Your task to perform on an android device: change timer sound Image 0: 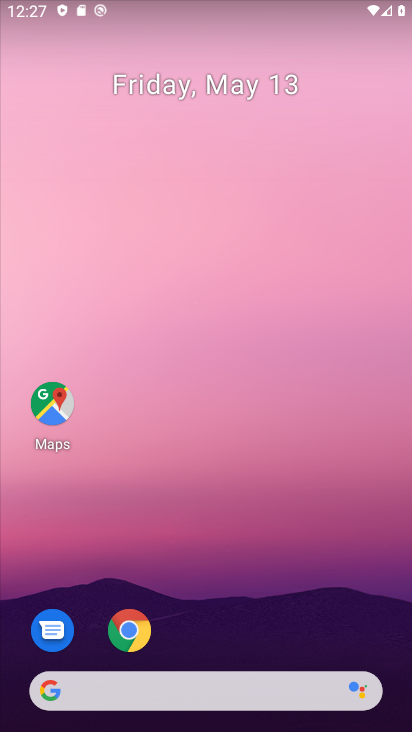
Step 0: drag from (263, 708) to (273, 283)
Your task to perform on an android device: change timer sound Image 1: 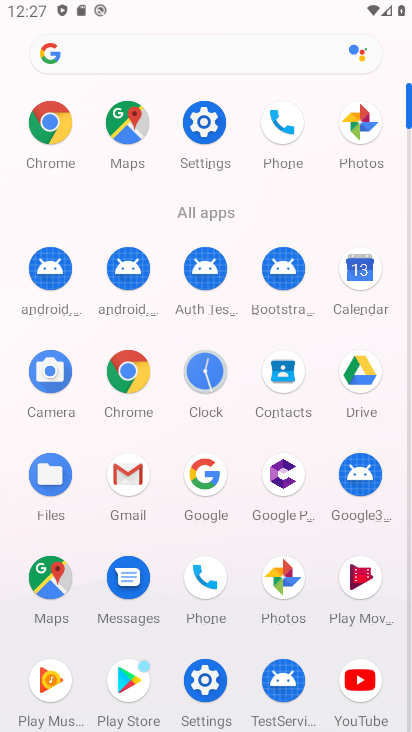
Step 1: click (204, 392)
Your task to perform on an android device: change timer sound Image 2: 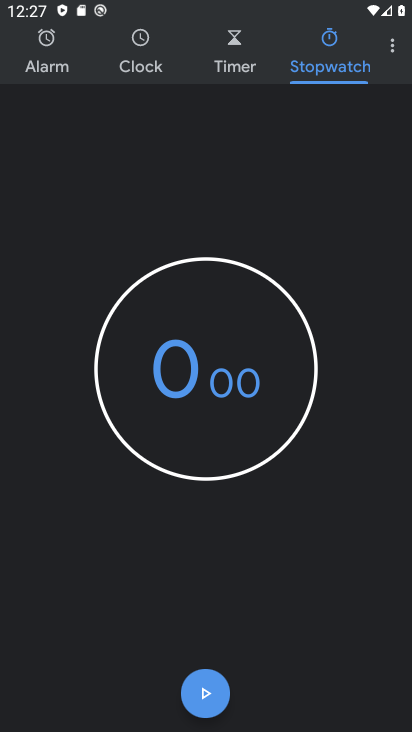
Step 2: click (382, 51)
Your task to perform on an android device: change timer sound Image 3: 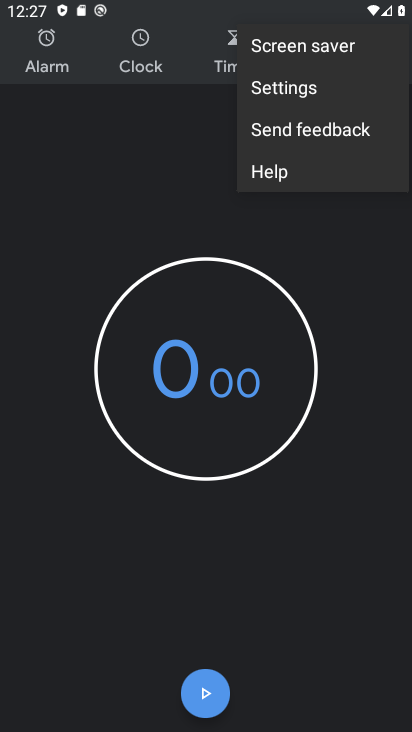
Step 3: click (297, 84)
Your task to perform on an android device: change timer sound Image 4: 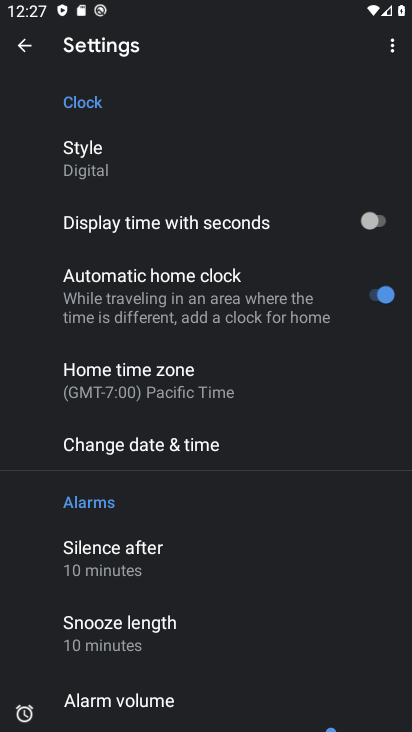
Step 4: drag from (210, 573) to (222, 383)
Your task to perform on an android device: change timer sound Image 5: 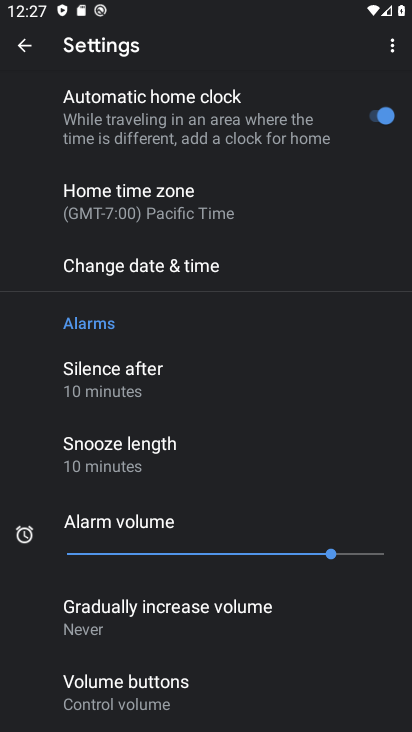
Step 5: drag from (180, 532) to (203, 401)
Your task to perform on an android device: change timer sound Image 6: 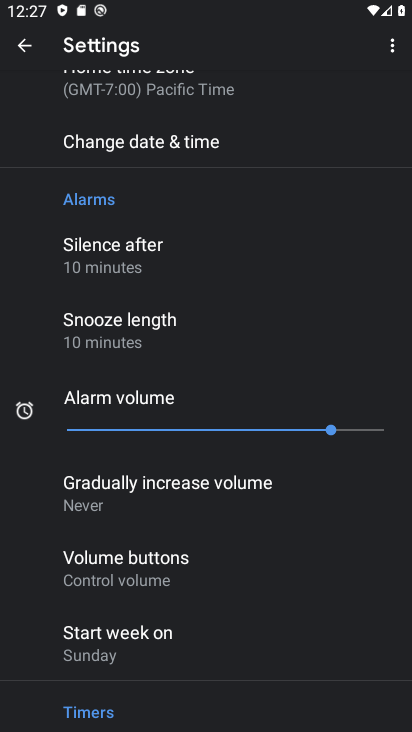
Step 6: drag from (202, 563) to (219, 409)
Your task to perform on an android device: change timer sound Image 7: 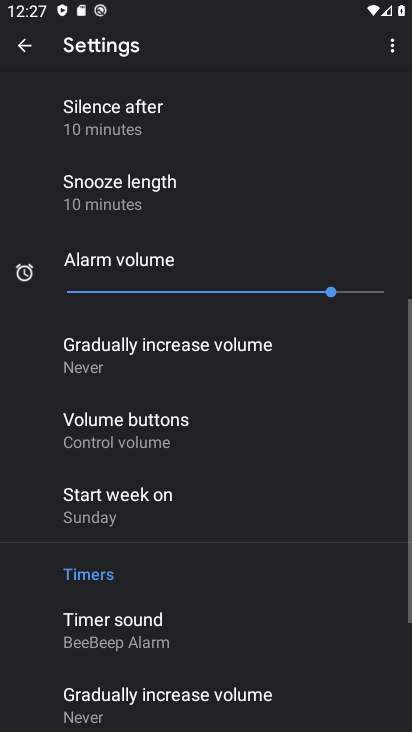
Step 7: click (193, 611)
Your task to perform on an android device: change timer sound Image 8: 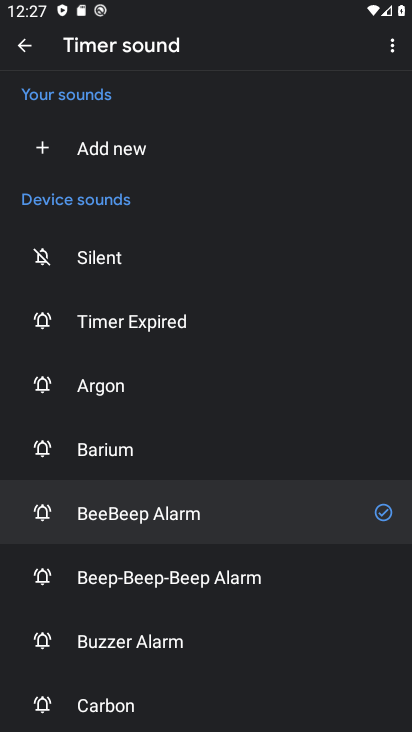
Step 8: click (176, 631)
Your task to perform on an android device: change timer sound Image 9: 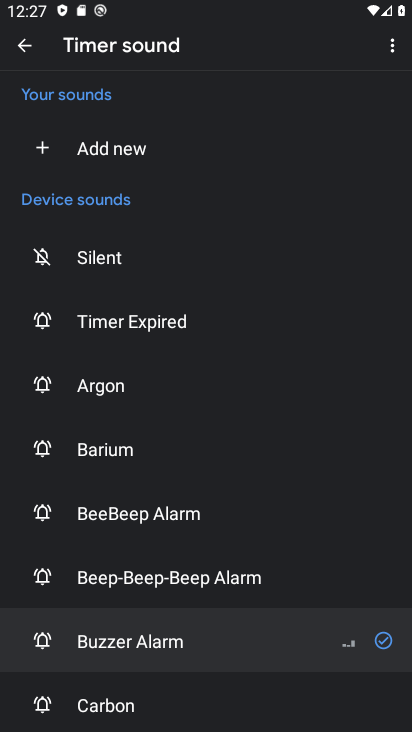
Step 9: task complete